Your task to perform on an android device: turn on priority inbox in the gmail app Image 0: 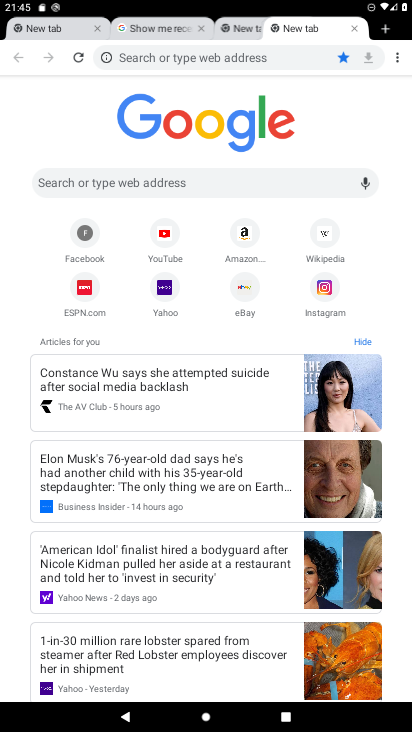
Step 0: press home button
Your task to perform on an android device: turn on priority inbox in the gmail app Image 1: 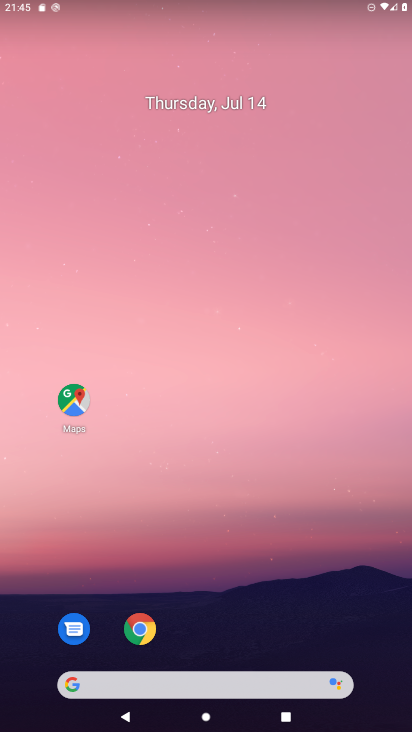
Step 1: drag from (280, 616) to (286, 257)
Your task to perform on an android device: turn on priority inbox in the gmail app Image 2: 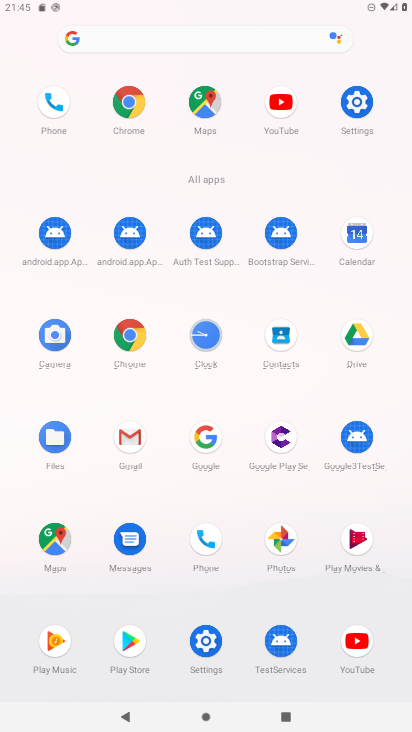
Step 2: click (118, 436)
Your task to perform on an android device: turn on priority inbox in the gmail app Image 3: 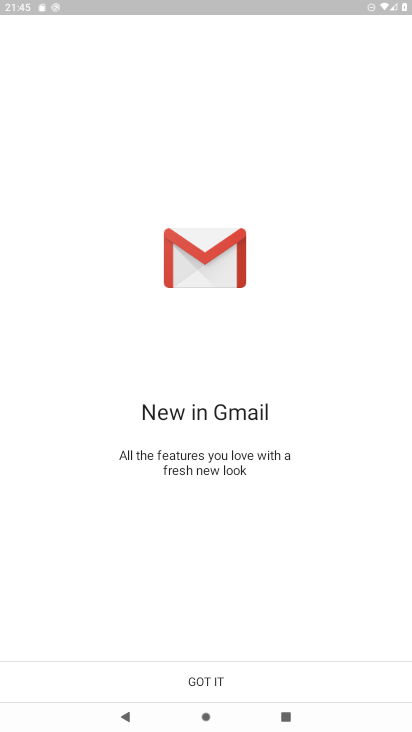
Step 3: click (191, 670)
Your task to perform on an android device: turn on priority inbox in the gmail app Image 4: 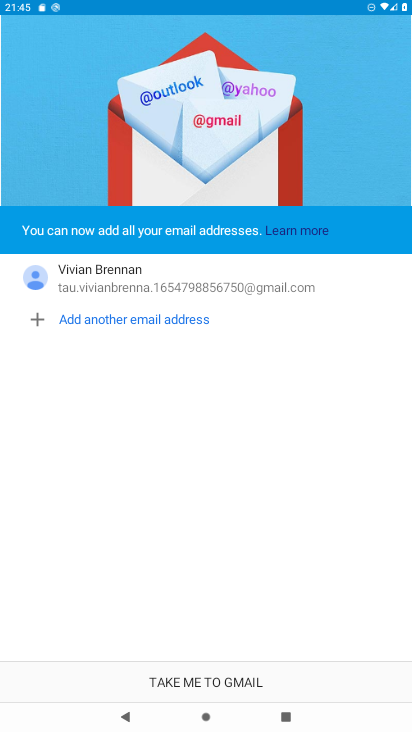
Step 4: click (201, 682)
Your task to perform on an android device: turn on priority inbox in the gmail app Image 5: 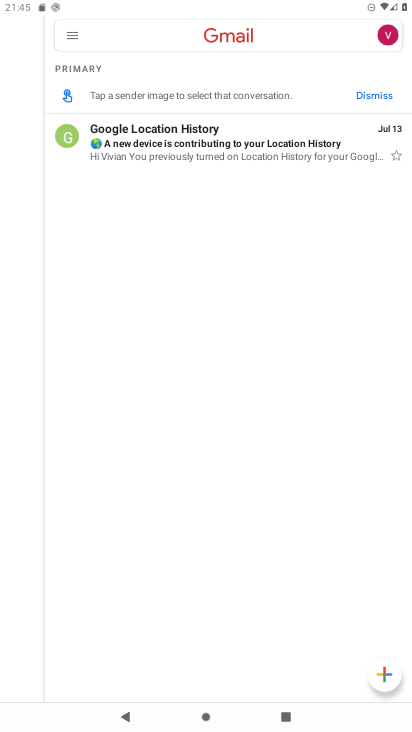
Step 5: click (65, 37)
Your task to perform on an android device: turn on priority inbox in the gmail app Image 6: 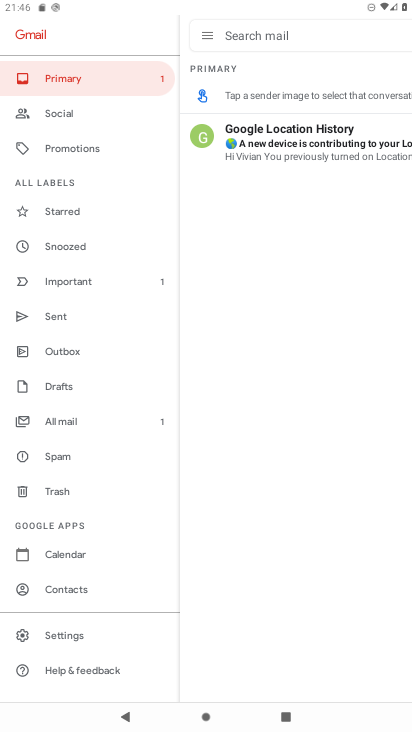
Step 6: click (73, 621)
Your task to perform on an android device: turn on priority inbox in the gmail app Image 7: 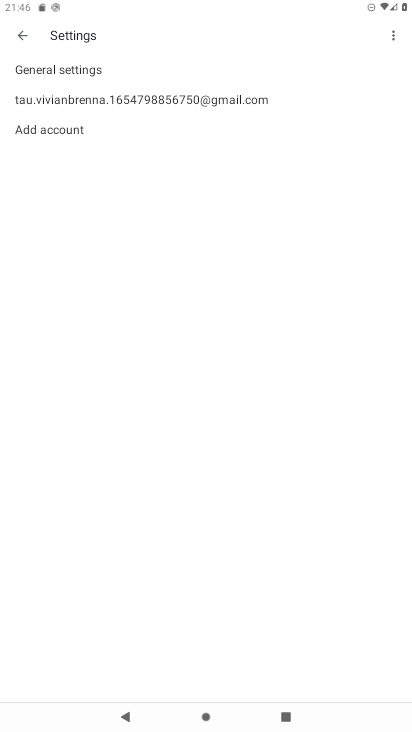
Step 7: click (54, 90)
Your task to perform on an android device: turn on priority inbox in the gmail app Image 8: 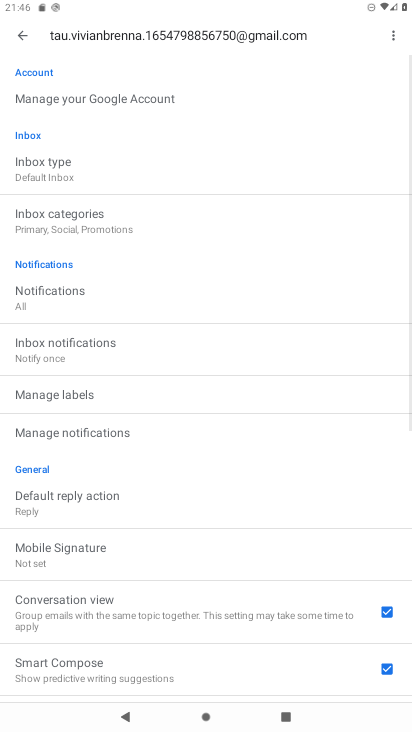
Step 8: click (51, 163)
Your task to perform on an android device: turn on priority inbox in the gmail app Image 9: 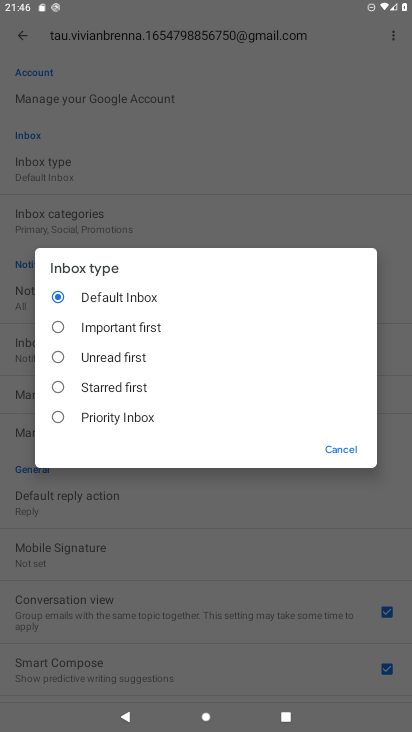
Step 9: click (105, 432)
Your task to perform on an android device: turn on priority inbox in the gmail app Image 10: 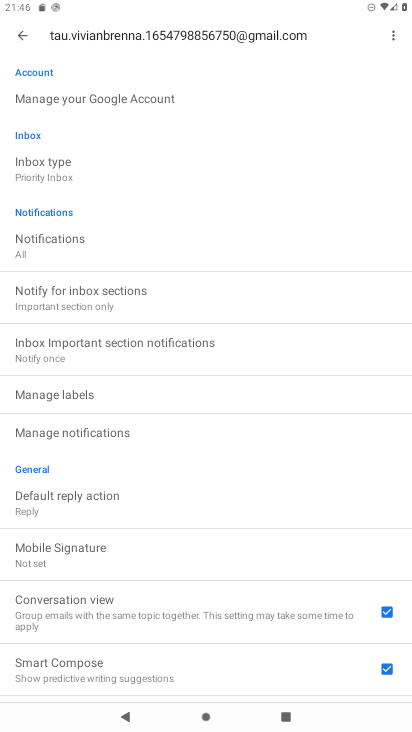
Step 10: task complete